Your task to perform on an android device: Search for pizza restaurants on Maps Image 0: 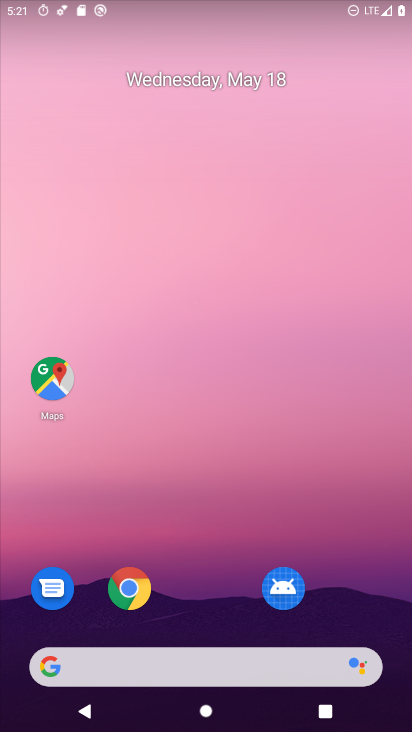
Step 0: click (44, 378)
Your task to perform on an android device: Search for pizza restaurants on Maps Image 1: 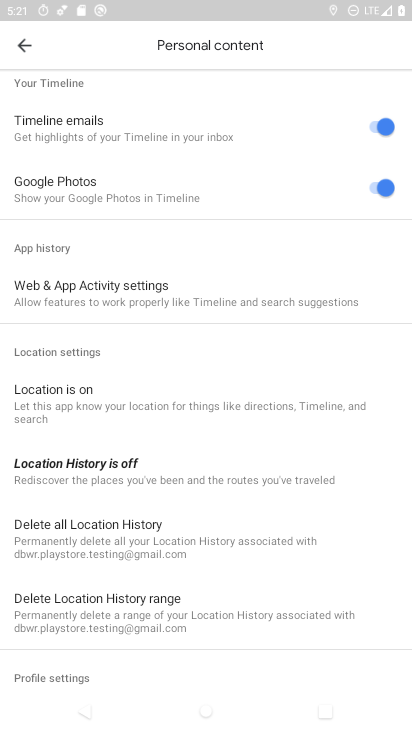
Step 1: click (24, 41)
Your task to perform on an android device: Search for pizza restaurants on Maps Image 2: 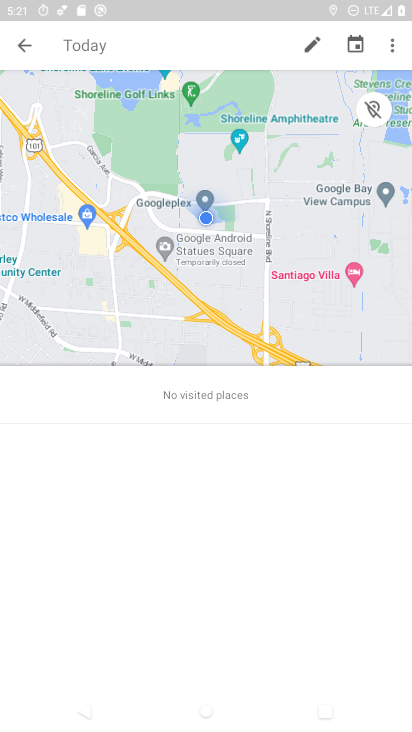
Step 2: click (18, 39)
Your task to perform on an android device: Search for pizza restaurants on Maps Image 3: 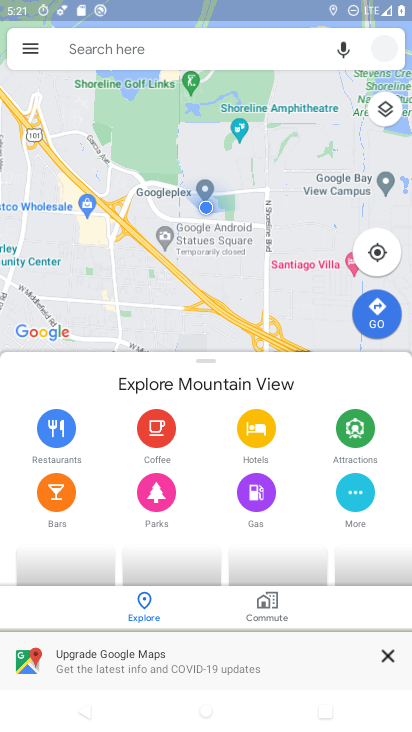
Step 3: click (76, 39)
Your task to perform on an android device: Search for pizza restaurants on Maps Image 4: 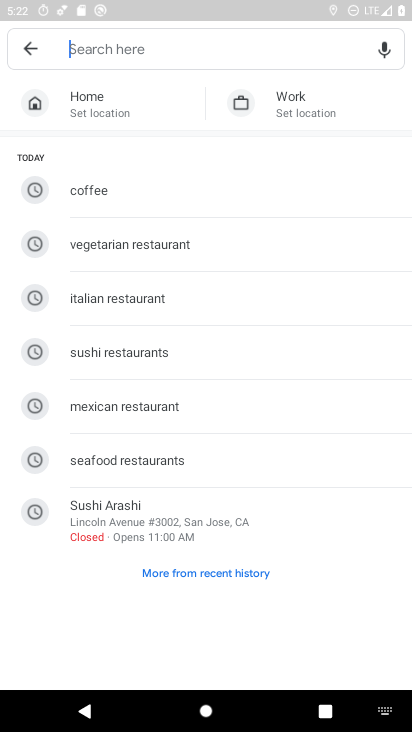
Step 4: type " pizza restaurants"
Your task to perform on an android device: Search for pizza restaurants on Maps Image 5: 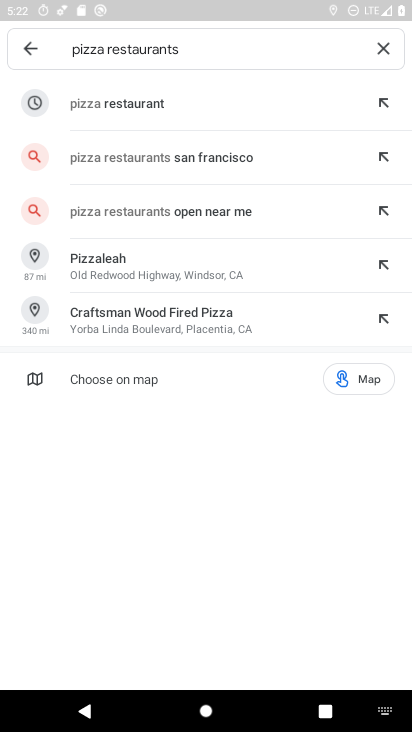
Step 5: click (91, 101)
Your task to perform on an android device: Search for pizza restaurants on Maps Image 6: 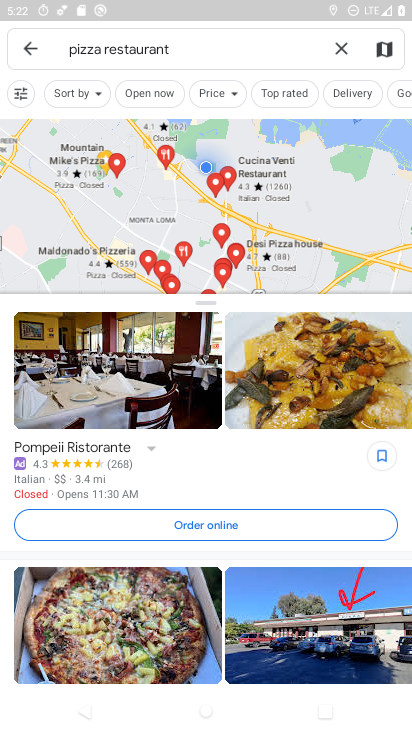
Step 6: task complete